Your task to perform on an android device: open app "Messenger Lite" (install if not already installed) Image 0: 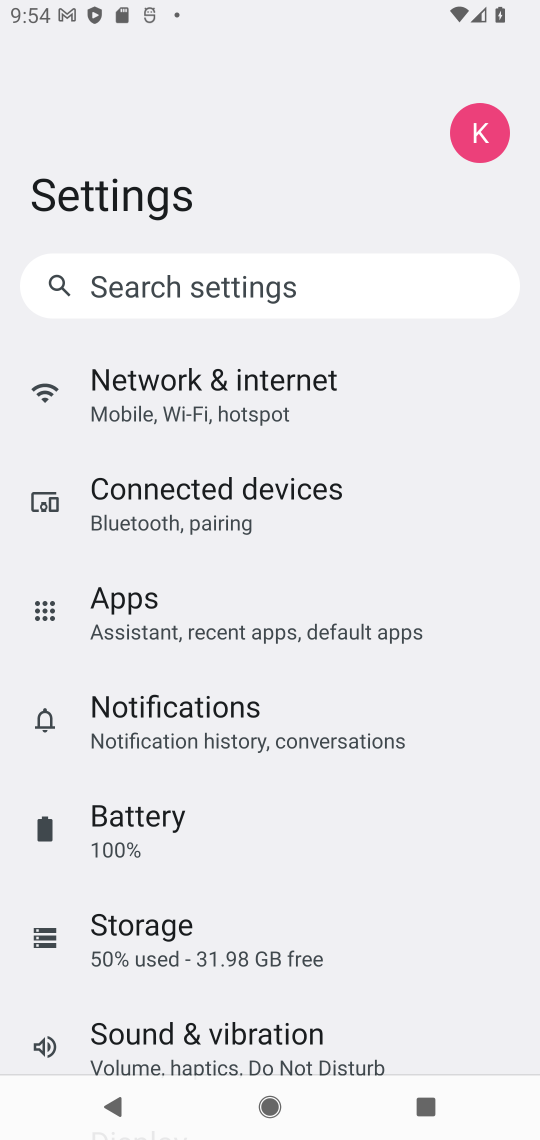
Step 0: press home button
Your task to perform on an android device: open app "Messenger Lite" (install if not already installed) Image 1: 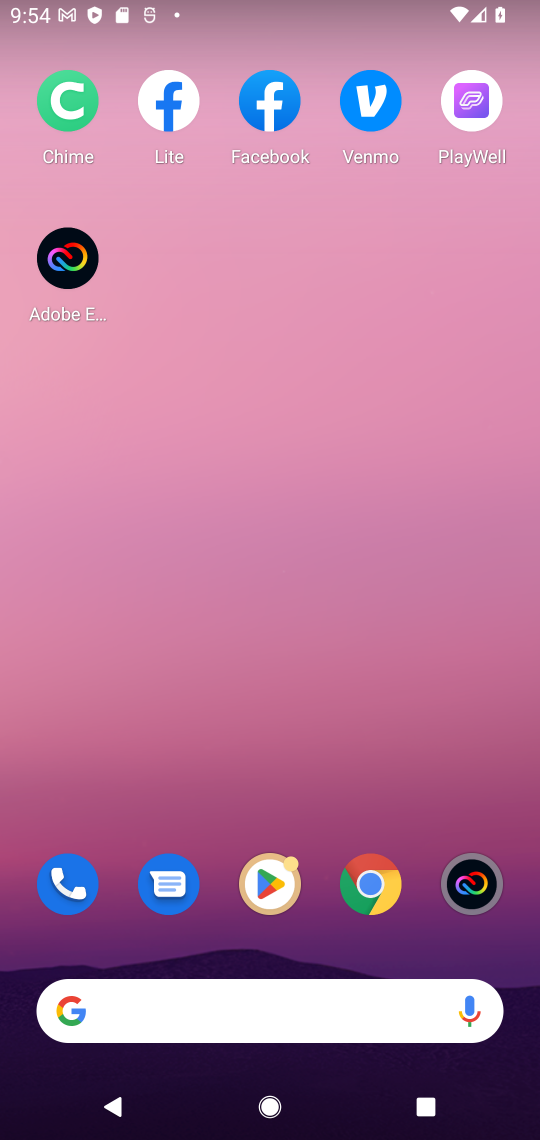
Step 1: click (270, 922)
Your task to perform on an android device: open app "Messenger Lite" (install if not already installed) Image 2: 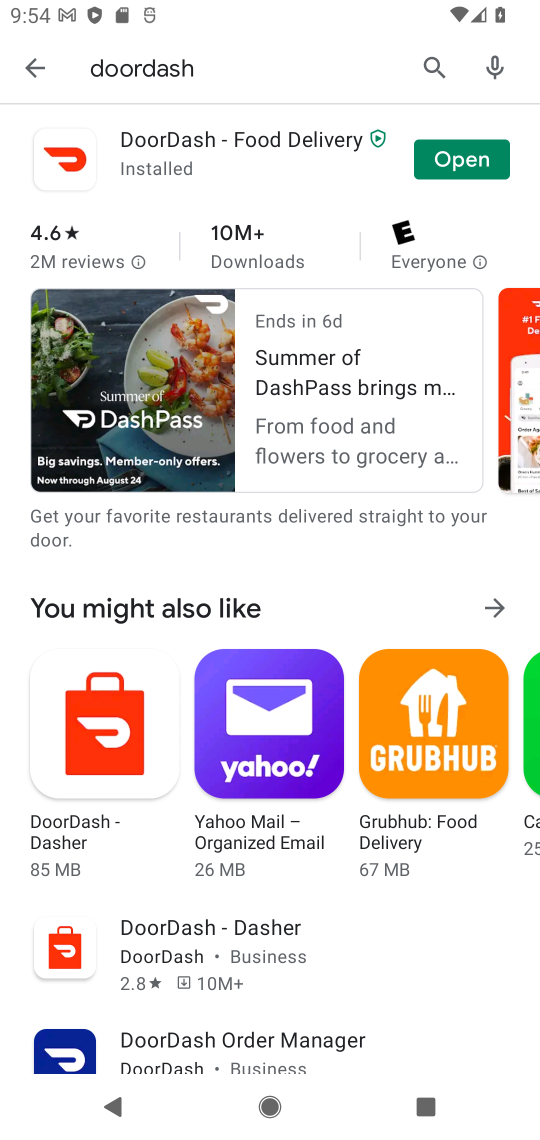
Step 2: click (436, 69)
Your task to perform on an android device: open app "Messenger Lite" (install if not already installed) Image 3: 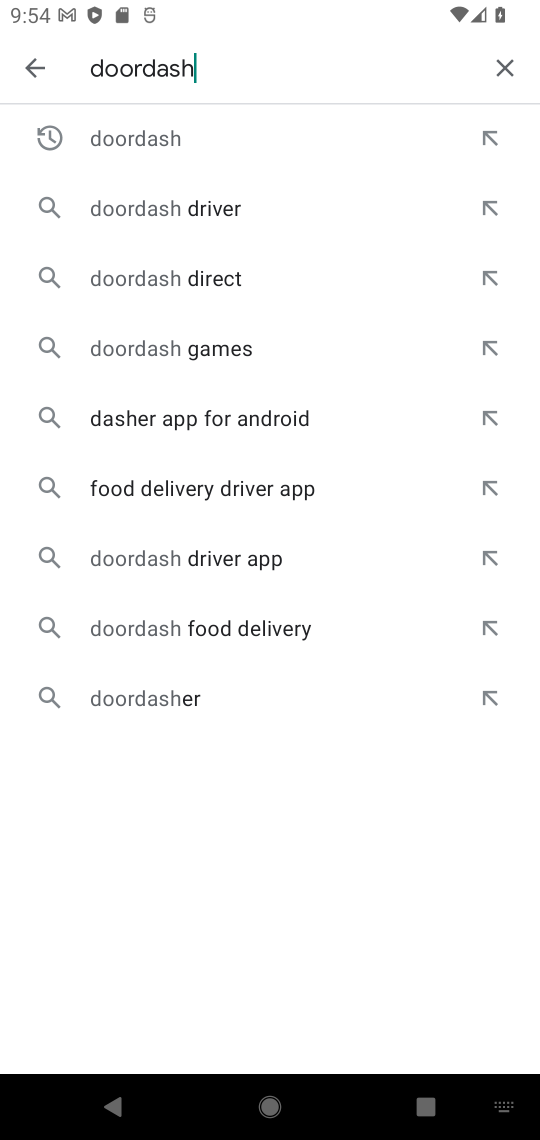
Step 3: click (502, 69)
Your task to perform on an android device: open app "Messenger Lite" (install if not already installed) Image 4: 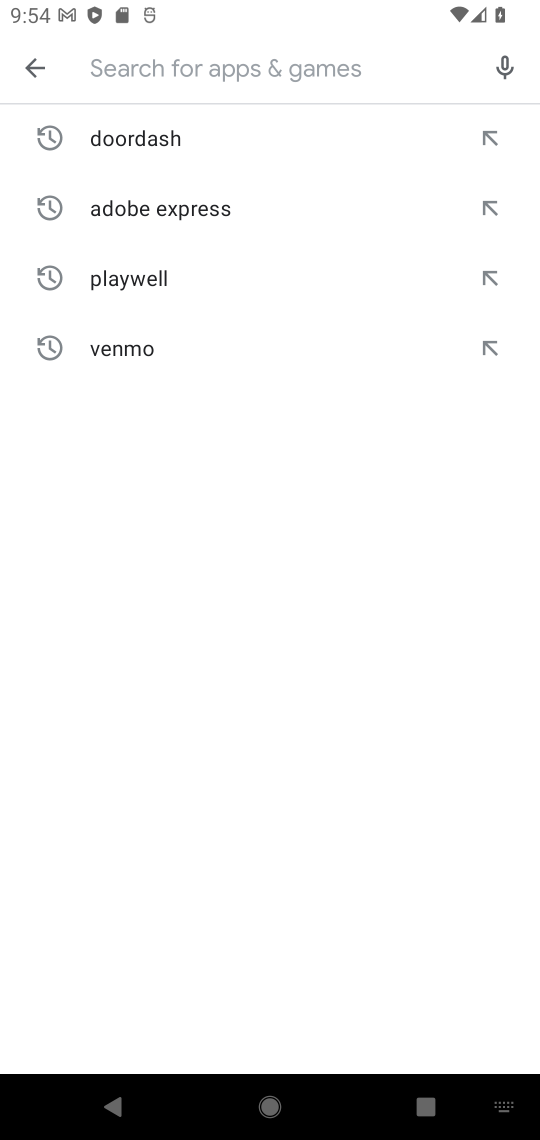
Step 4: type "messanger"
Your task to perform on an android device: open app "Messenger Lite" (install if not already installed) Image 5: 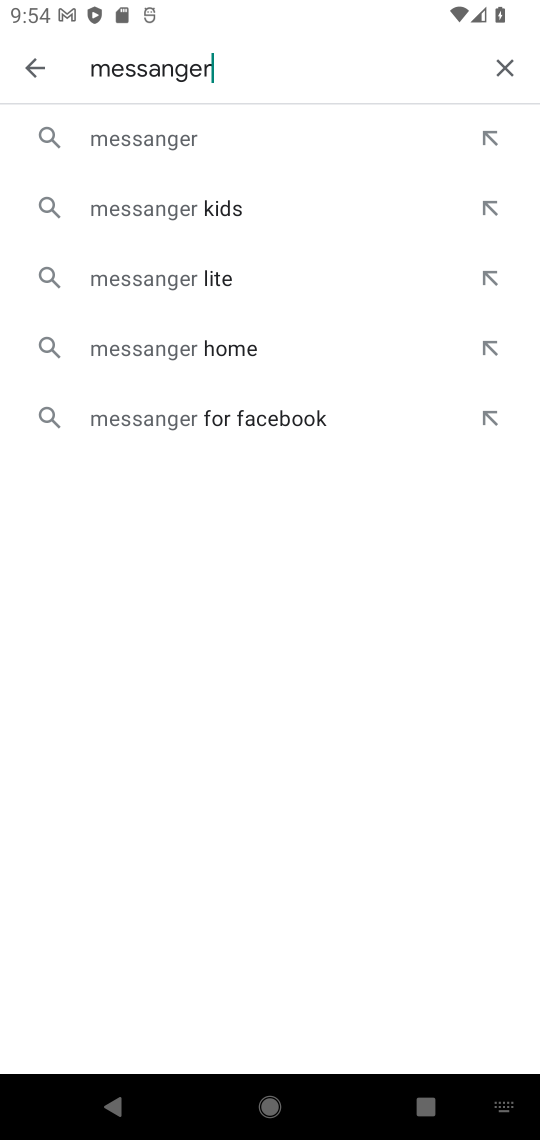
Step 5: click (302, 272)
Your task to perform on an android device: open app "Messenger Lite" (install if not already installed) Image 6: 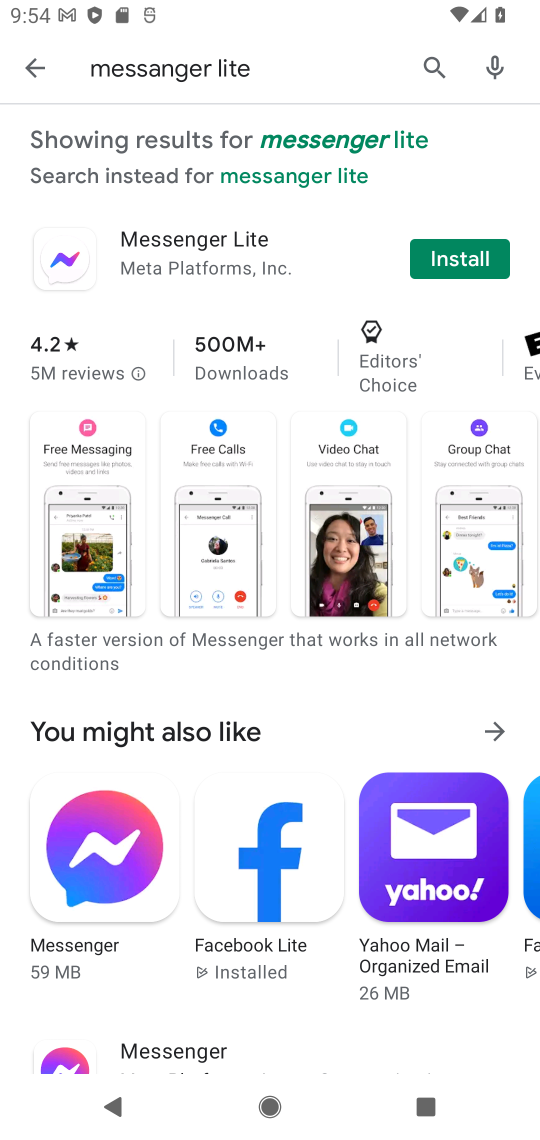
Step 6: click (473, 276)
Your task to perform on an android device: open app "Messenger Lite" (install if not already installed) Image 7: 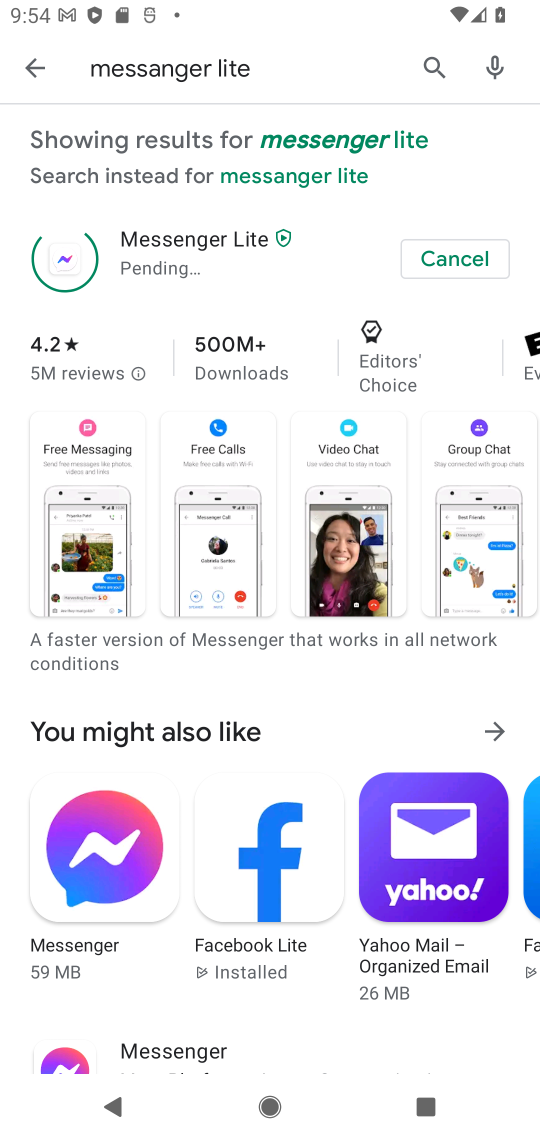
Step 7: task complete